Your task to perform on an android device: read, delete, or share a saved page in the chrome app Image 0: 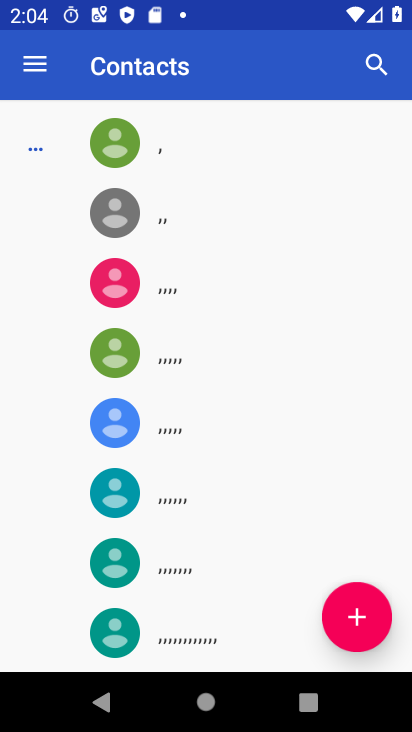
Step 0: press home button
Your task to perform on an android device: read, delete, or share a saved page in the chrome app Image 1: 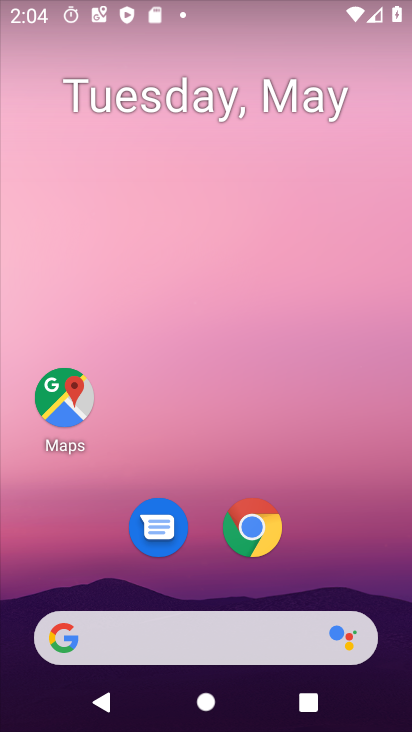
Step 1: drag from (254, 658) to (252, 233)
Your task to perform on an android device: read, delete, or share a saved page in the chrome app Image 2: 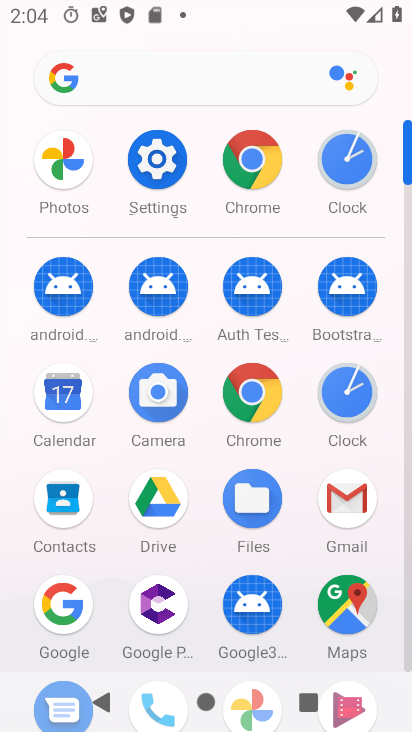
Step 2: click (239, 179)
Your task to perform on an android device: read, delete, or share a saved page in the chrome app Image 3: 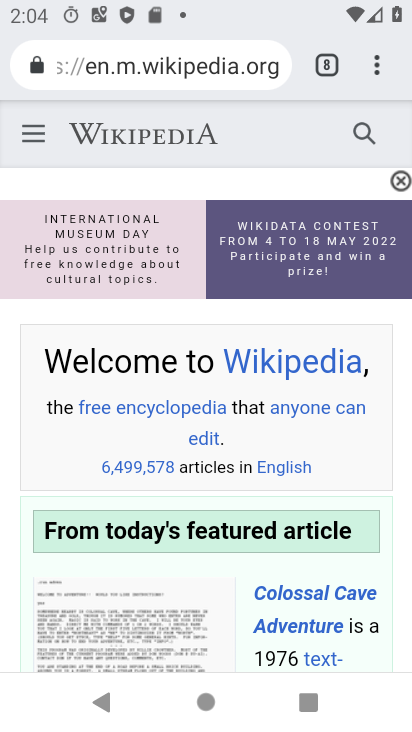
Step 3: click (379, 78)
Your task to perform on an android device: read, delete, or share a saved page in the chrome app Image 4: 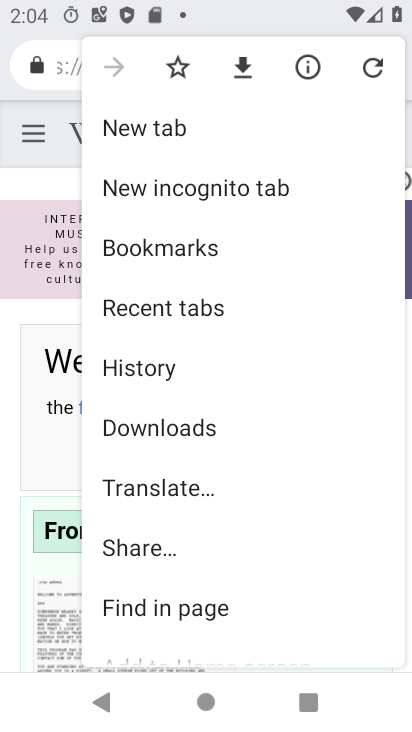
Step 4: click (145, 546)
Your task to perform on an android device: read, delete, or share a saved page in the chrome app Image 5: 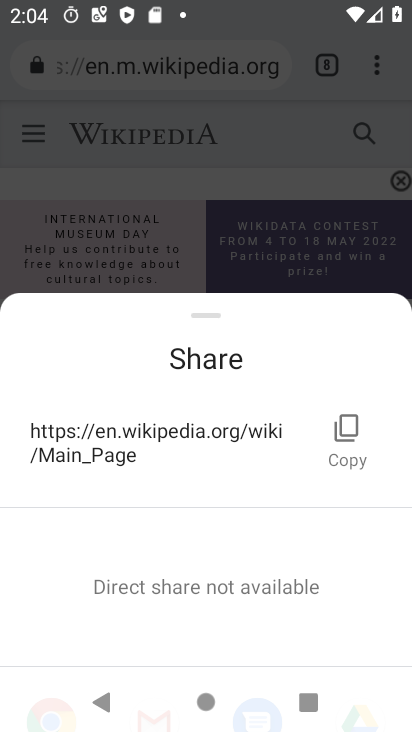
Step 5: task complete